Your task to perform on an android device: Open location settings Image 0: 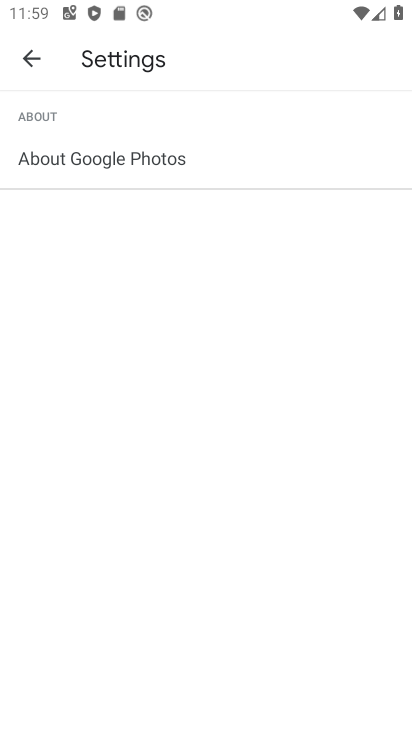
Step 0: press home button
Your task to perform on an android device: Open location settings Image 1: 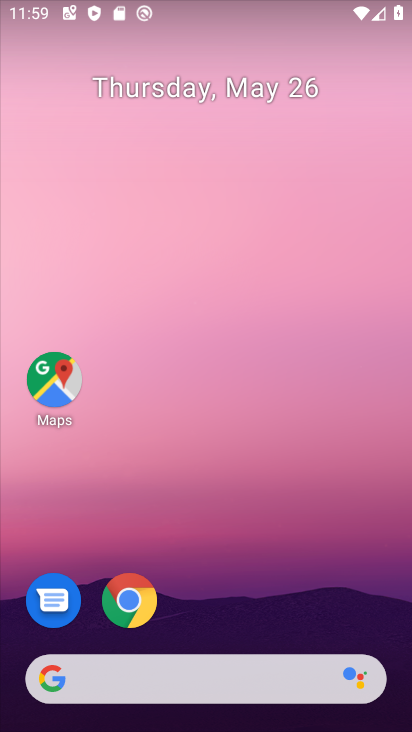
Step 1: drag from (235, 615) to (200, 21)
Your task to perform on an android device: Open location settings Image 2: 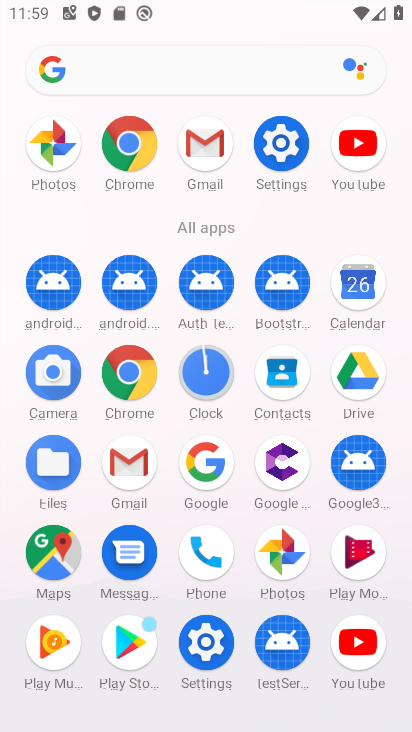
Step 2: click (283, 134)
Your task to perform on an android device: Open location settings Image 3: 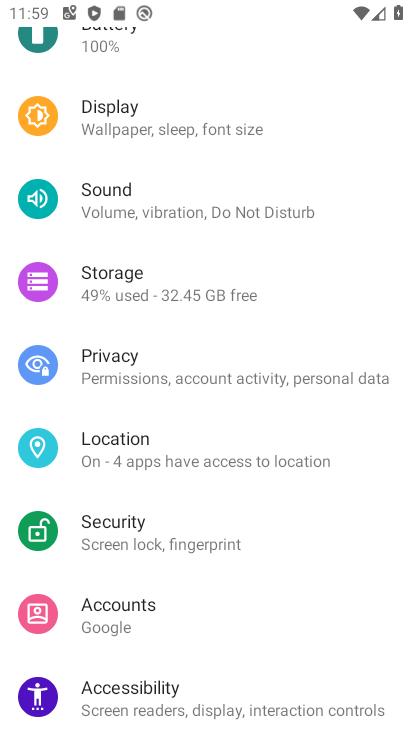
Step 3: click (128, 451)
Your task to perform on an android device: Open location settings Image 4: 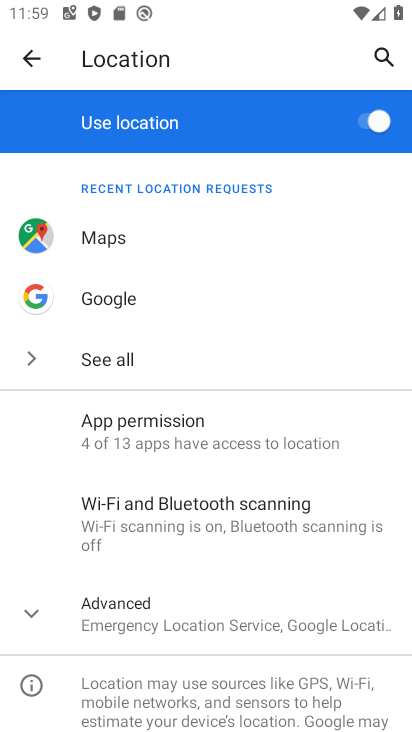
Step 4: task complete